Your task to perform on an android device: Open Chrome and go to settings Image 0: 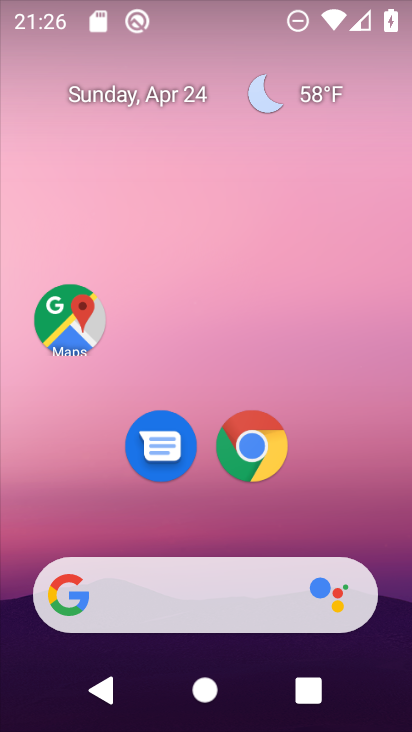
Step 0: press home button
Your task to perform on an android device: Open Chrome and go to settings Image 1: 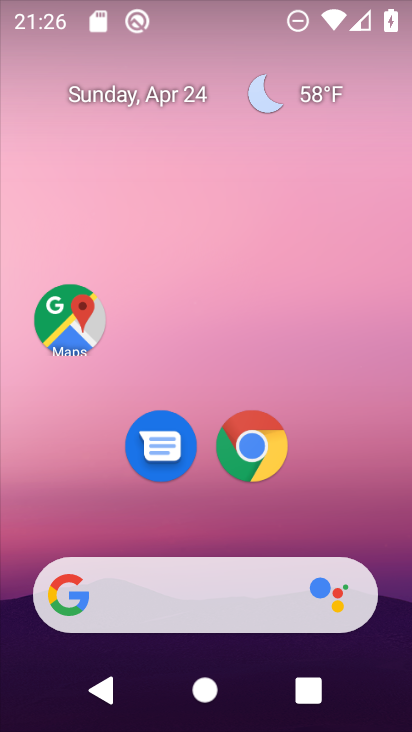
Step 1: click (259, 451)
Your task to perform on an android device: Open Chrome and go to settings Image 2: 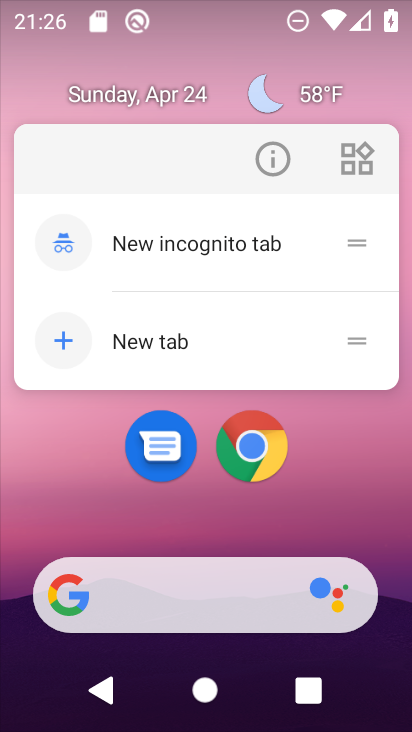
Step 2: click (257, 461)
Your task to perform on an android device: Open Chrome and go to settings Image 3: 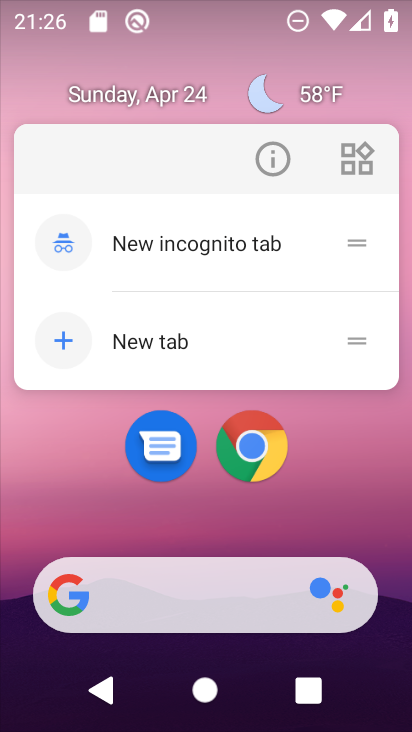
Step 3: click (253, 466)
Your task to perform on an android device: Open Chrome and go to settings Image 4: 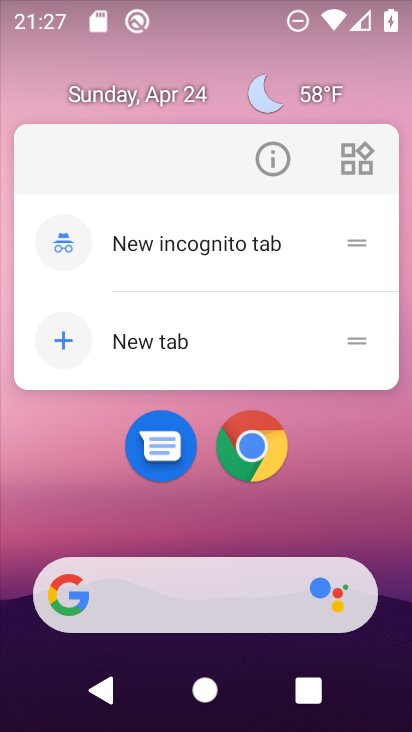
Step 4: click (246, 448)
Your task to perform on an android device: Open Chrome and go to settings Image 5: 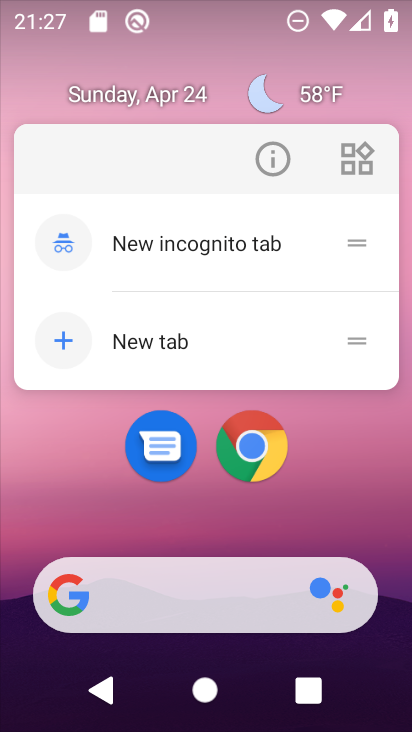
Step 5: click (248, 456)
Your task to perform on an android device: Open Chrome and go to settings Image 6: 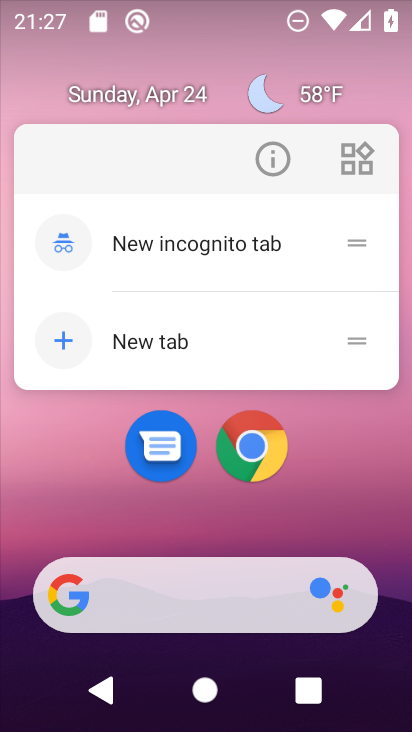
Step 6: click (262, 449)
Your task to perform on an android device: Open Chrome and go to settings Image 7: 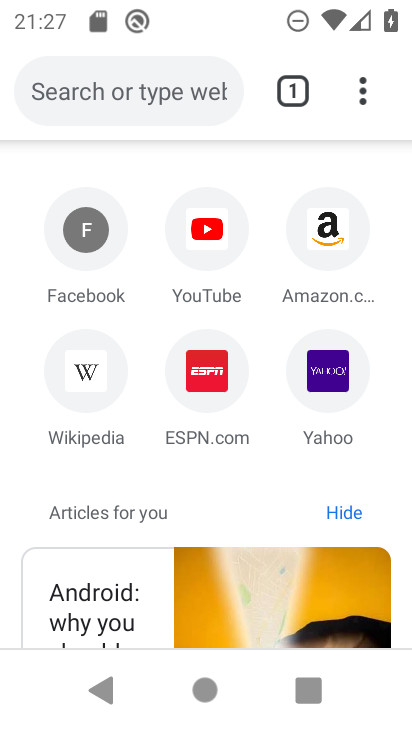
Step 7: drag from (363, 93) to (142, 459)
Your task to perform on an android device: Open Chrome and go to settings Image 8: 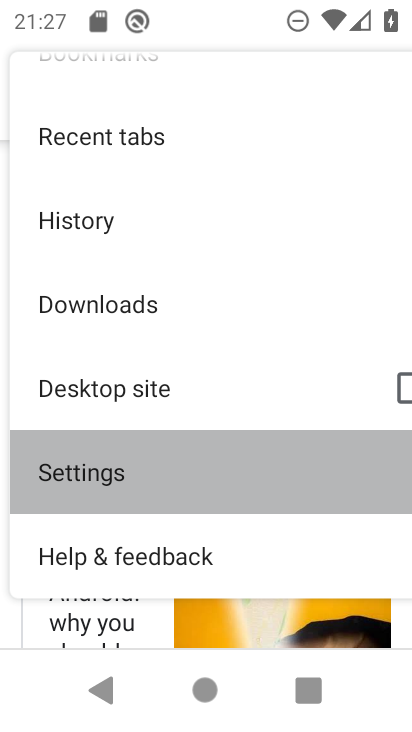
Step 8: click (142, 459)
Your task to perform on an android device: Open Chrome and go to settings Image 9: 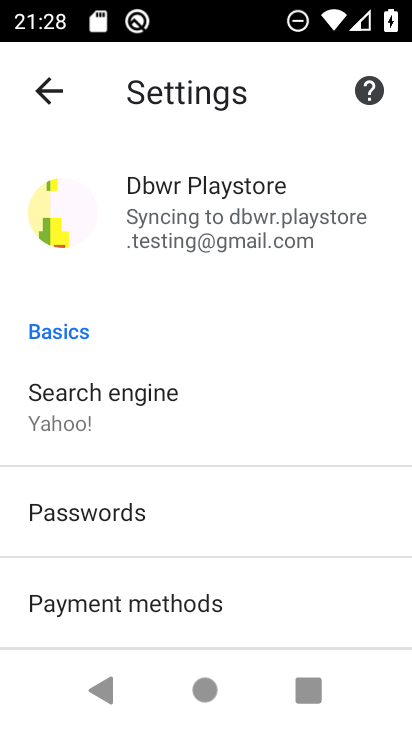
Step 9: task complete